Your task to perform on an android device: manage bookmarks in the chrome app Image 0: 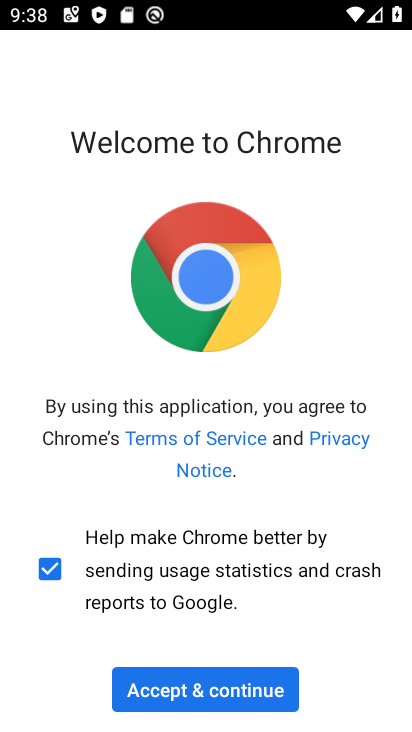
Step 0: press home button
Your task to perform on an android device: manage bookmarks in the chrome app Image 1: 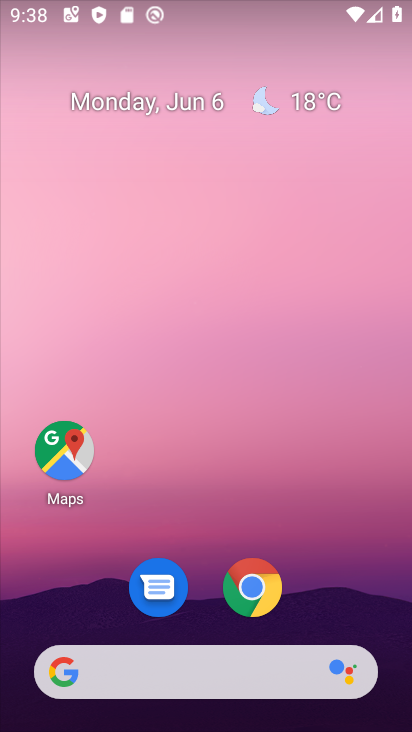
Step 1: click (250, 585)
Your task to perform on an android device: manage bookmarks in the chrome app Image 2: 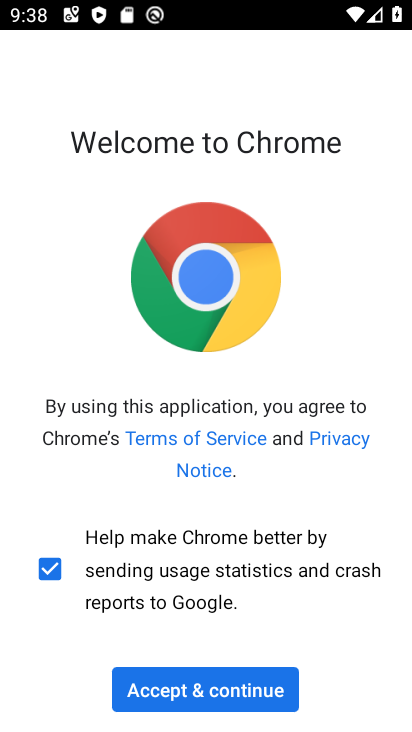
Step 2: click (191, 695)
Your task to perform on an android device: manage bookmarks in the chrome app Image 3: 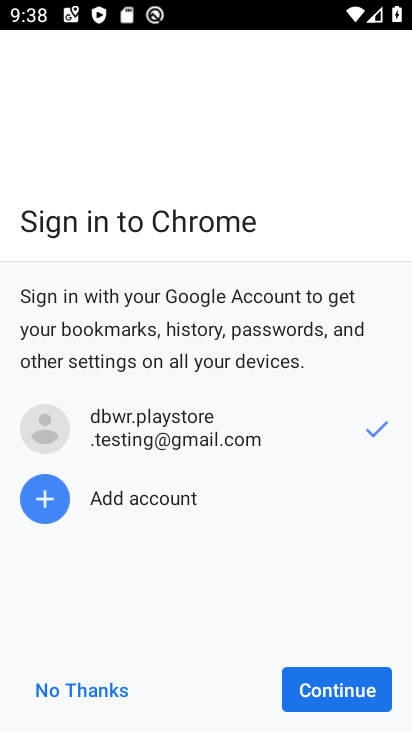
Step 3: click (331, 677)
Your task to perform on an android device: manage bookmarks in the chrome app Image 4: 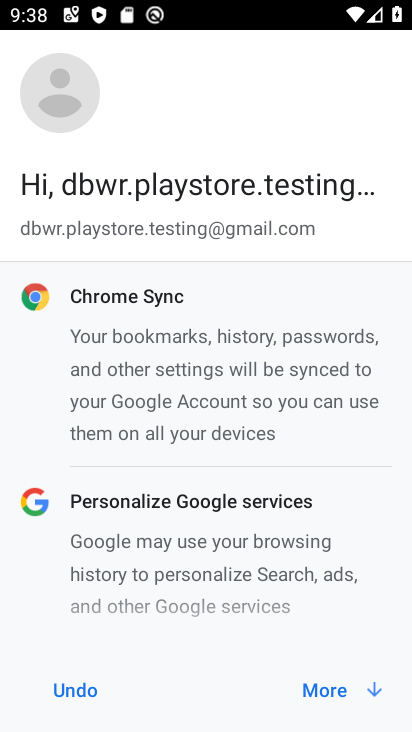
Step 4: click (332, 687)
Your task to perform on an android device: manage bookmarks in the chrome app Image 5: 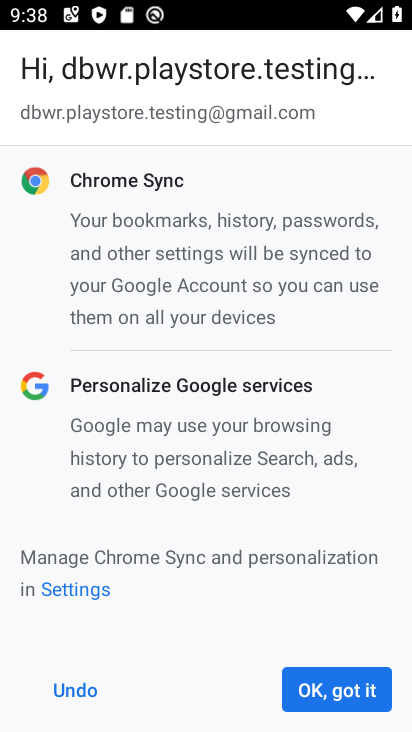
Step 5: click (332, 687)
Your task to perform on an android device: manage bookmarks in the chrome app Image 6: 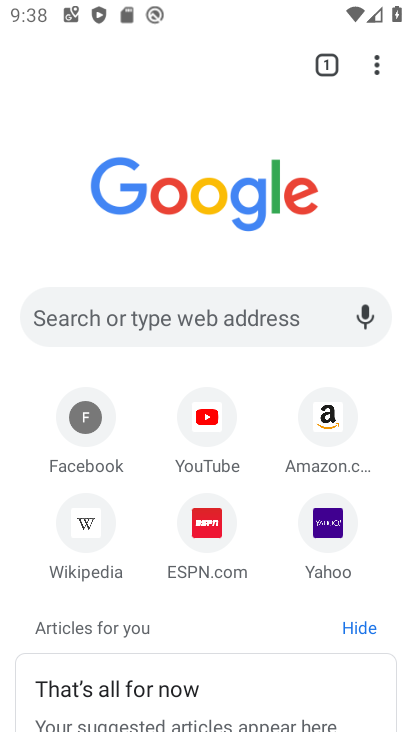
Step 6: click (376, 65)
Your task to perform on an android device: manage bookmarks in the chrome app Image 7: 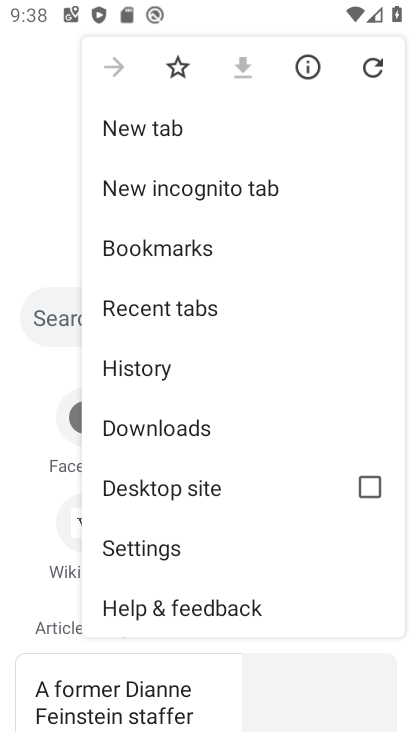
Step 7: click (218, 243)
Your task to perform on an android device: manage bookmarks in the chrome app Image 8: 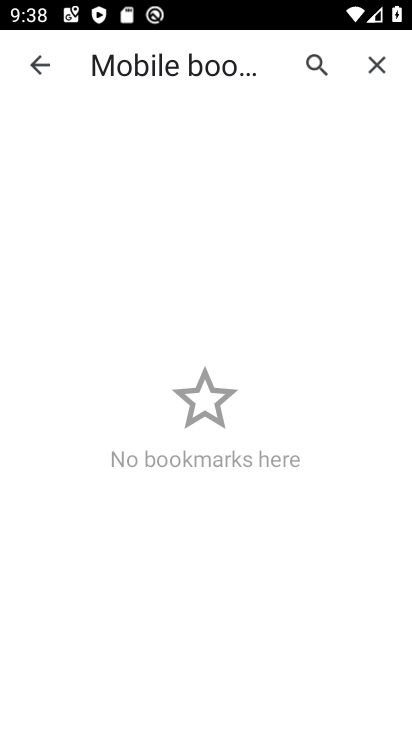
Step 8: task complete